Your task to perform on an android device: Open network settings Image 0: 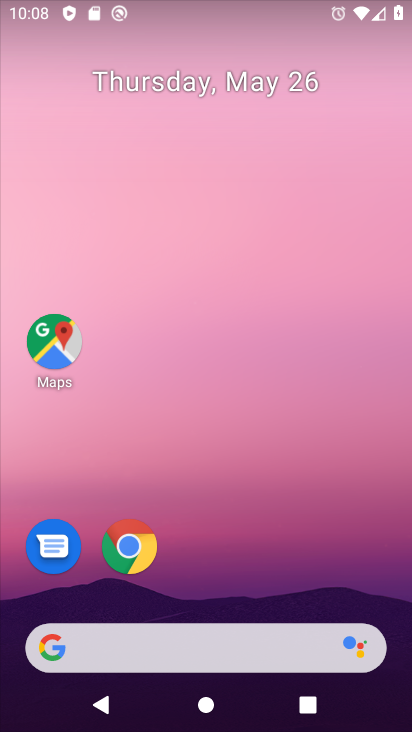
Step 0: drag from (251, 552) to (234, 156)
Your task to perform on an android device: Open network settings Image 1: 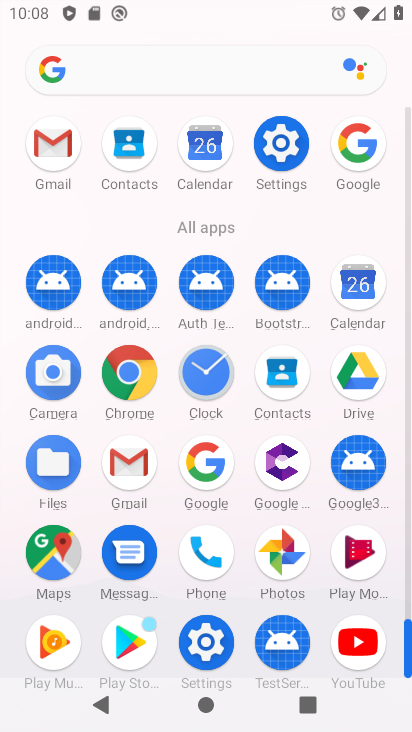
Step 1: click (279, 145)
Your task to perform on an android device: Open network settings Image 2: 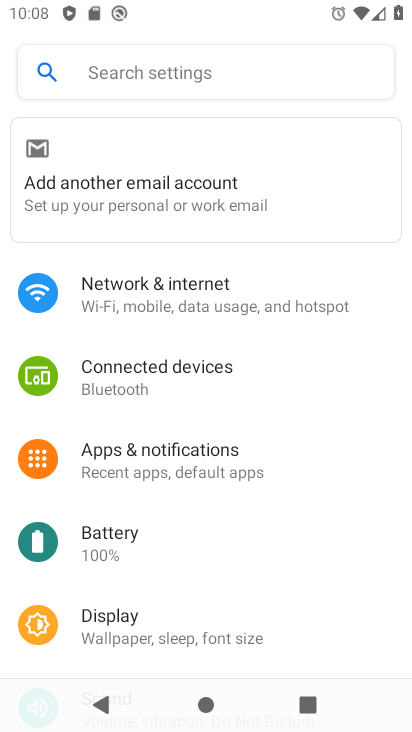
Step 2: click (152, 299)
Your task to perform on an android device: Open network settings Image 3: 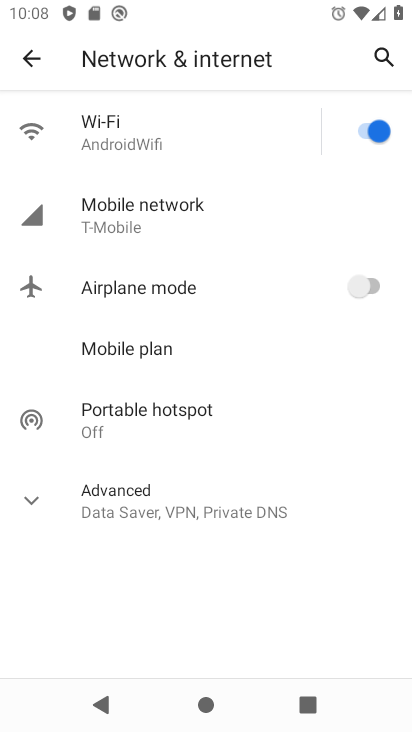
Step 3: click (150, 234)
Your task to perform on an android device: Open network settings Image 4: 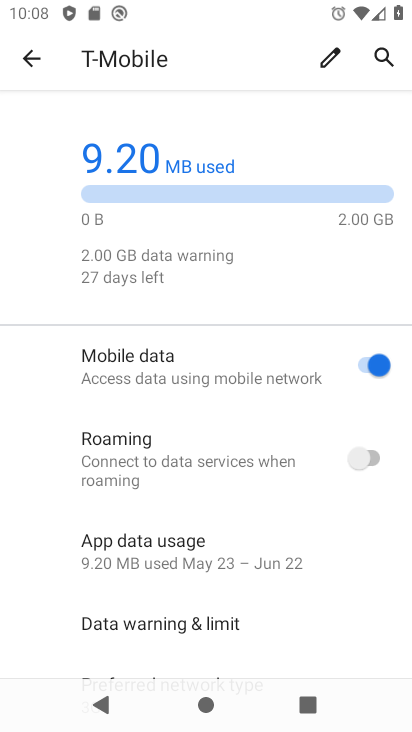
Step 4: task complete